Your task to perform on an android device: Go to eBay Image 0: 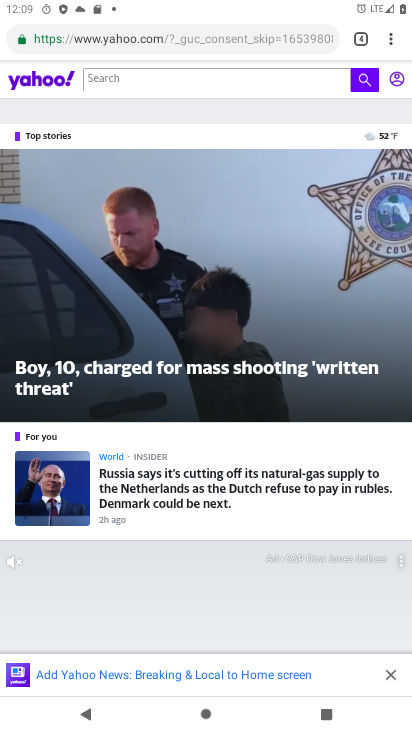
Step 0: press home button
Your task to perform on an android device: Go to eBay Image 1: 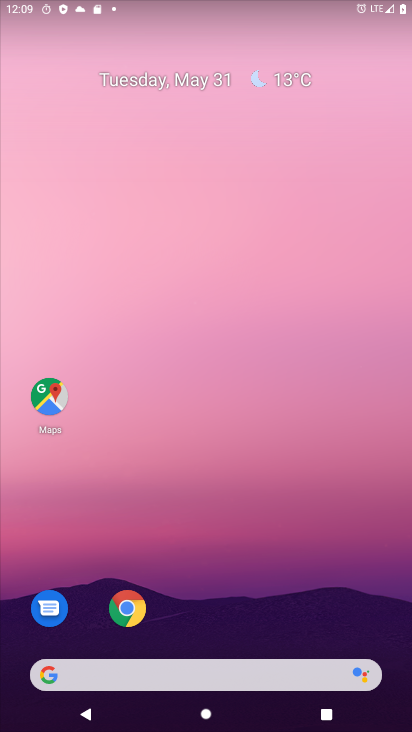
Step 1: click (132, 613)
Your task to perform on an android device: Go to eBay Image 2: 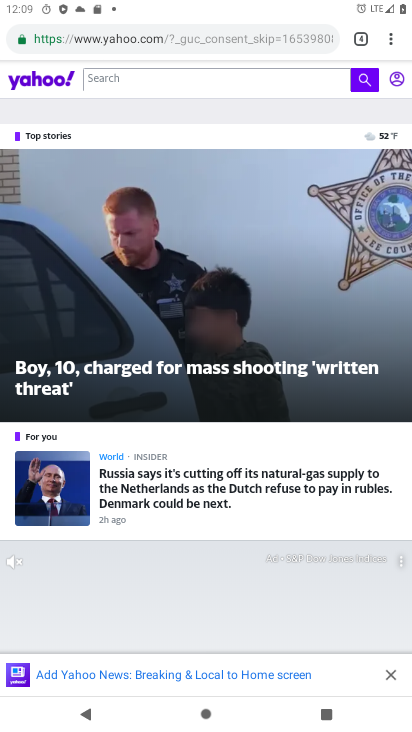
Step 2: click (153, 44)
Your task to perform on an android device: Go to eBay Image 3: 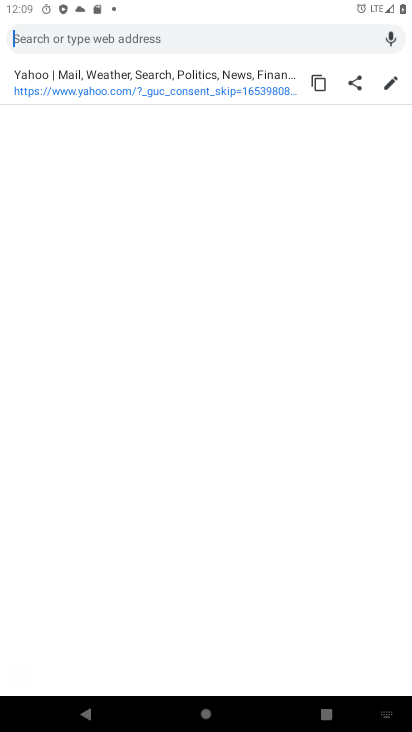
Step 3: type "ebay"
Your task to perform on an android device: Go to eBay Image 4: 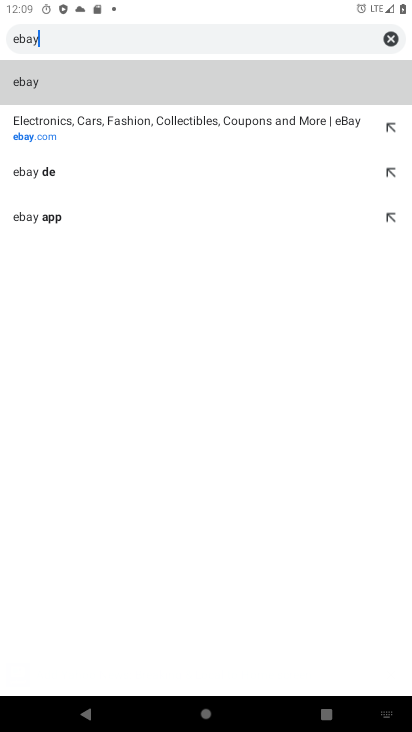
Step 4: click (32, 134)
Your task to perform on an android device: Go to eBay Image 5: 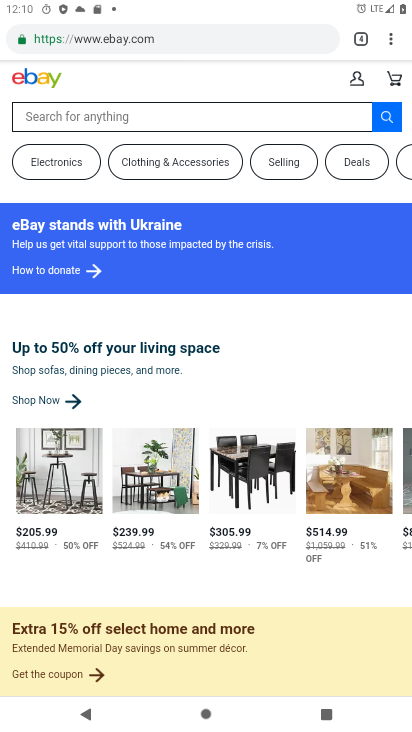
Step 5: task complete